Your task to perform on an android device: Check the weather Image 0: 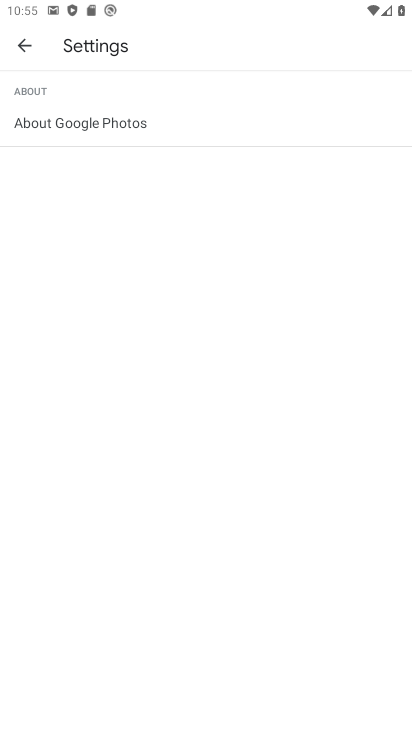
Step 0: press home button
Your task to perform on an android device: Check the weather Image 1: 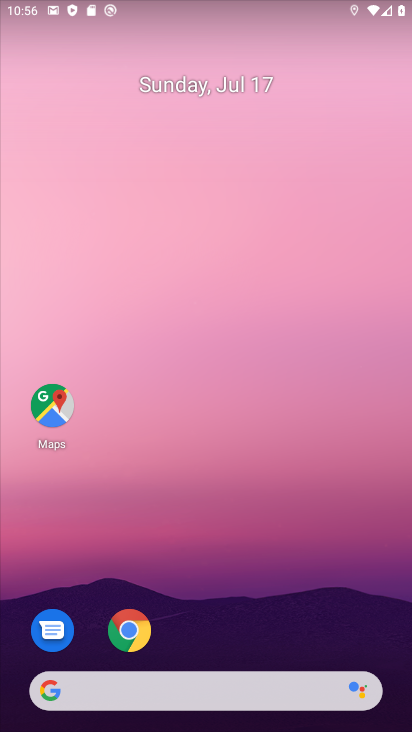
Step 1: click (120, 632)
Your task to perform on an android device: Check the weather Image 2: 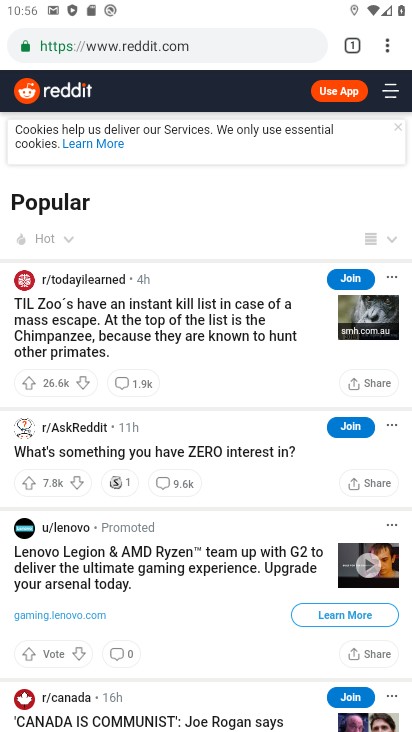
Step 2: click (209, 37)
Your task to perform on an android device: Check the weather Image 3: 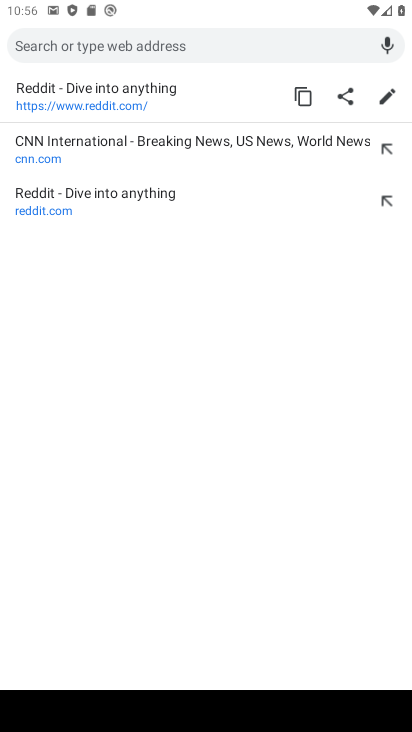
Step 3: type "Check the weather"
Your task to perform on an android device: Check the weather Image 4: 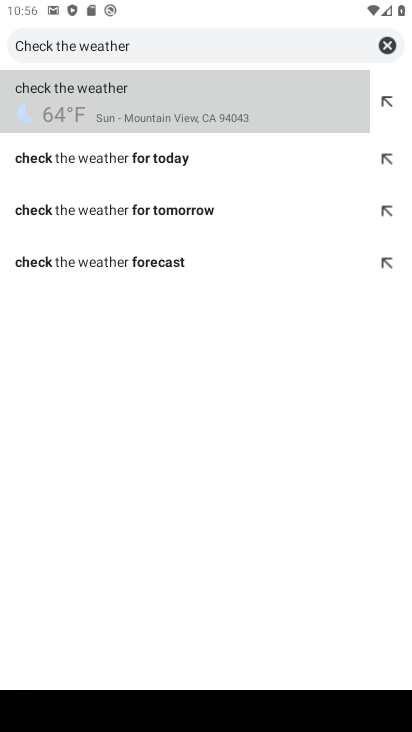
Step 4: click (160, 101)
Your task to perform on an android device: Check the weather Image 5: 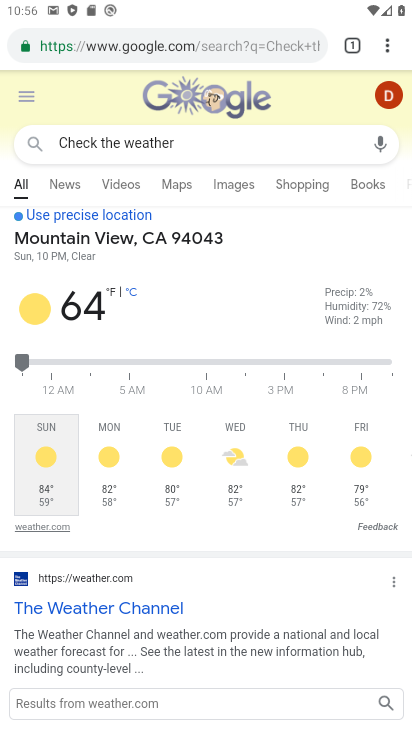
Step 5: task complete